Your task to perform on an android device: Open Wikipedia Image 0: 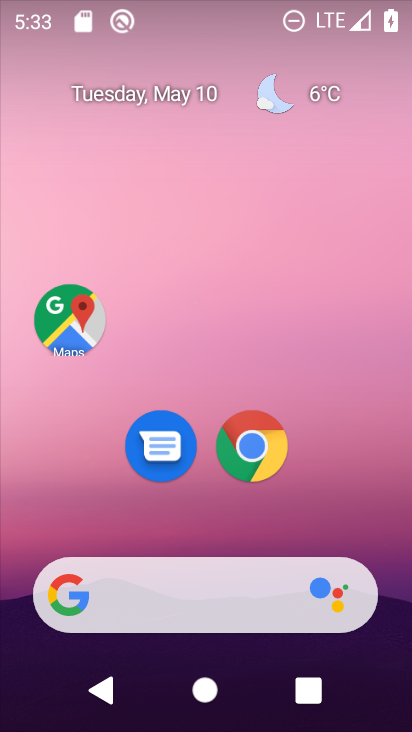
Step 0: click (252, 440)
Your task to perform on an android device: Open Wikipedia Image 1: 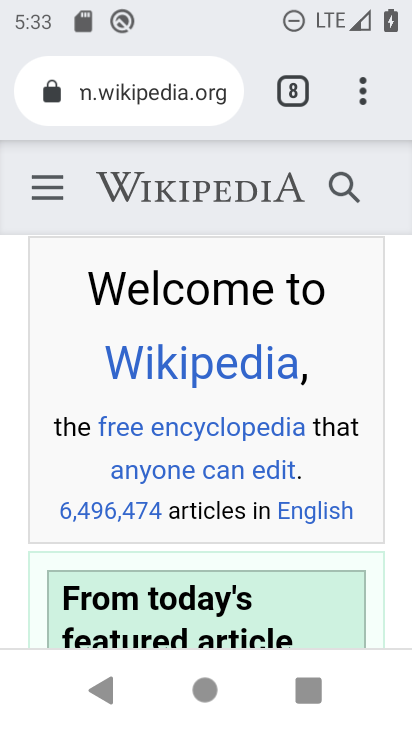
Step 1: task complete